Your task to perform on an android device: manage bookmarks in the chrome app Image 0: 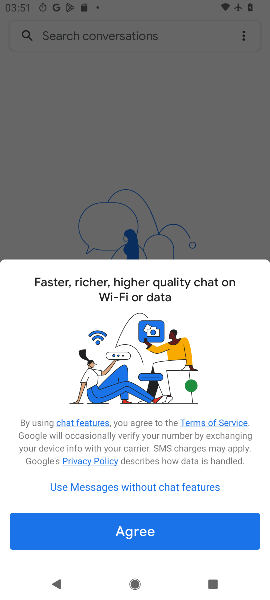
Step 0: press home button
Your task to perform on an android device: manage bookmarks in the chrome app Image 1: 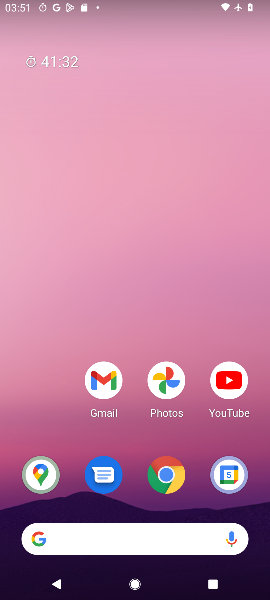
Step 1: drag from (62, 425) to (66, 225)
Your task to perform on an android device: manage bookmarks in the chrome app Image 2: 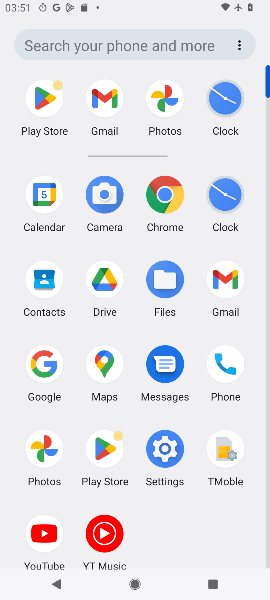
Step 2: click (166, 192)
Your task to perform on an android device: manage bookmarks in the chrome app Image 3: 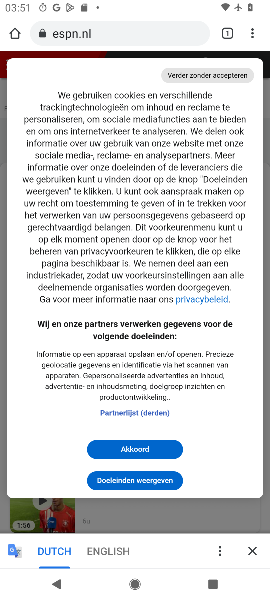
Step 3: click (251, 32)
Your task to perform on an android device: manage bookmarks in the chrome app Image 4: 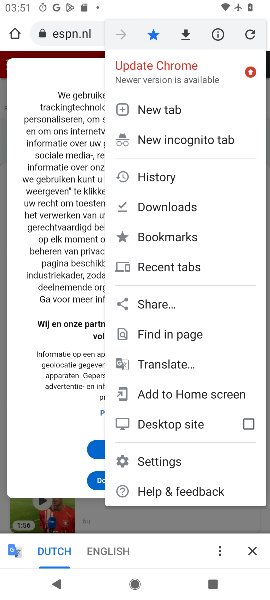
Step 4: click (190, 238)
Your task to perform on an android device: manage bookmarks in the chrome app Image 5: 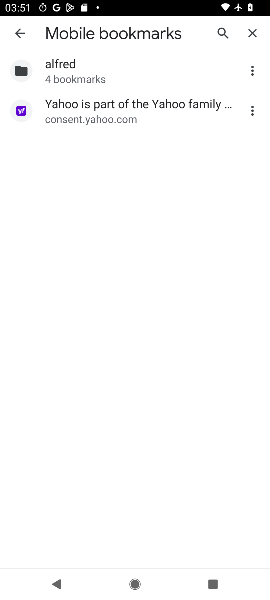
Step 5: click (252, 72)
Your task to perform on an android device: manage bookmarks in the chrome app Image 6: 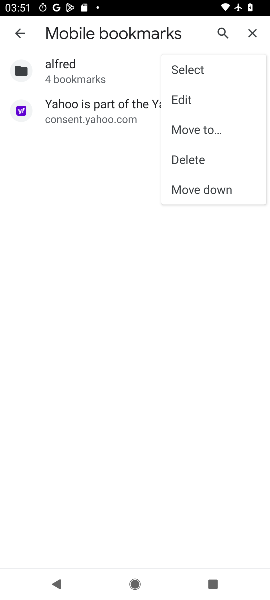
Step 6: click (204, 97)
Your task to perform on an android device: manage bookmarks in the chrome app Image 7: 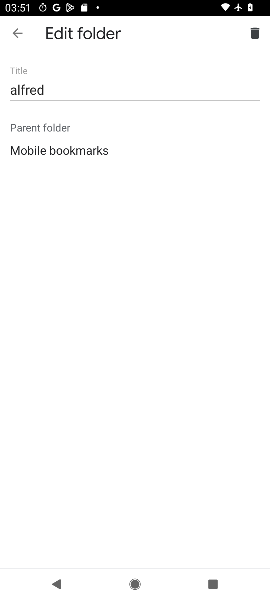
Step 7: click (148, 92)
Your task to perform on an android device: manage bookmarks in the chrome app Image 8: 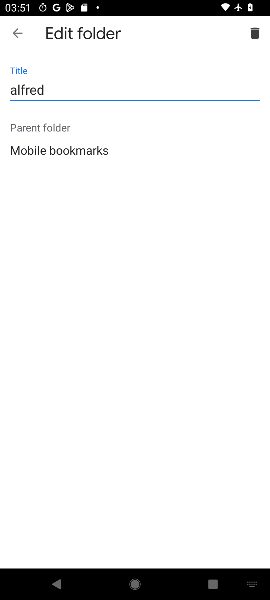
Step 8: type "d"
Your task to perform on an android device: manage bookmarks in the chrome app Image 9: 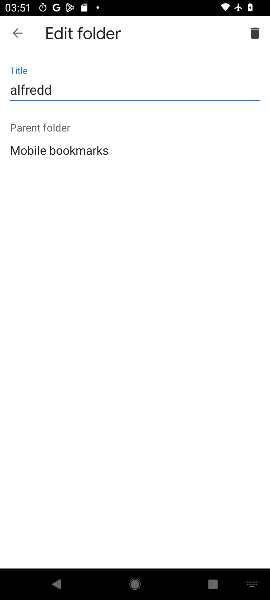
Step 9: click (15, 33)
Your task to perform on an android device: manage bookmarks in the chrome app Image 10: 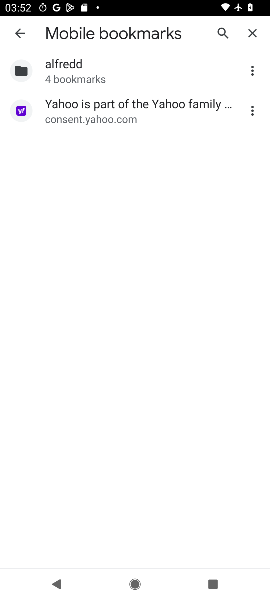
Step 10: task complete